Your task to perform on an android device: set default search engine in the chrome app Image 0: 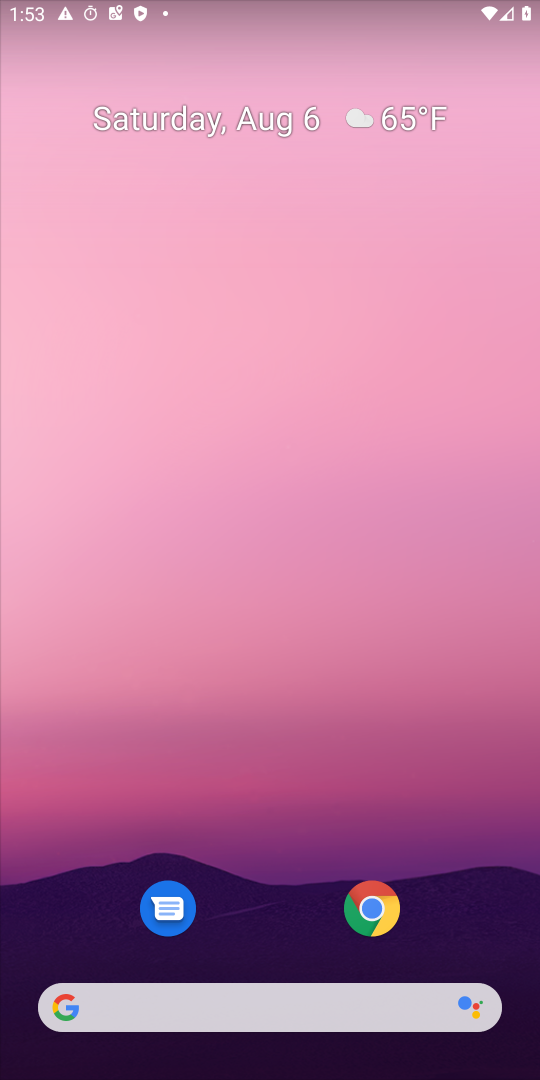
Step 0: click (362, 916)
Your task to perform on an android device: set default search engine in the chrome app Image 1: 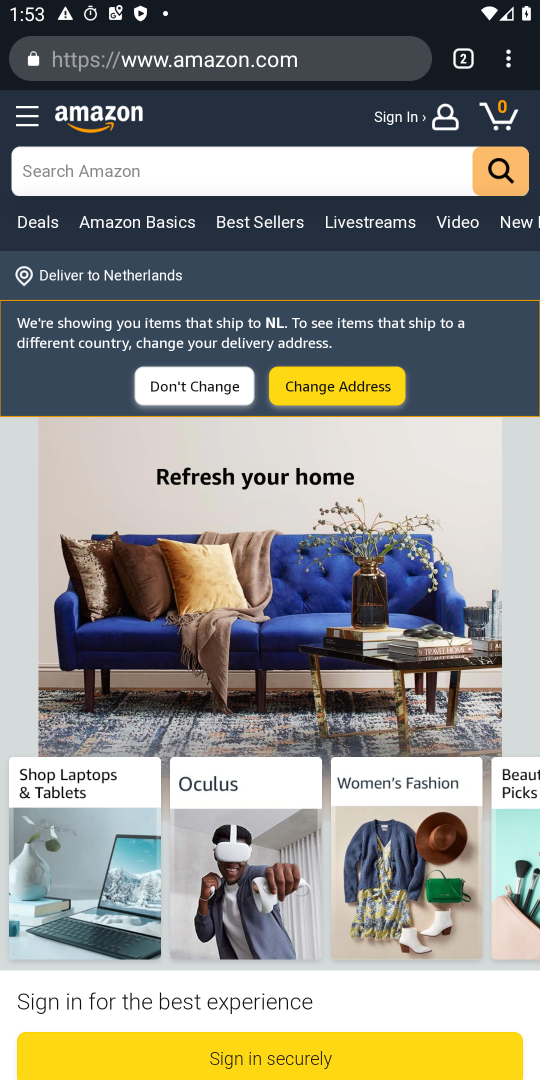
Step 1: click (497, 63)
Your task to perform on an android device: set default search engine in the chrome app Image 2: 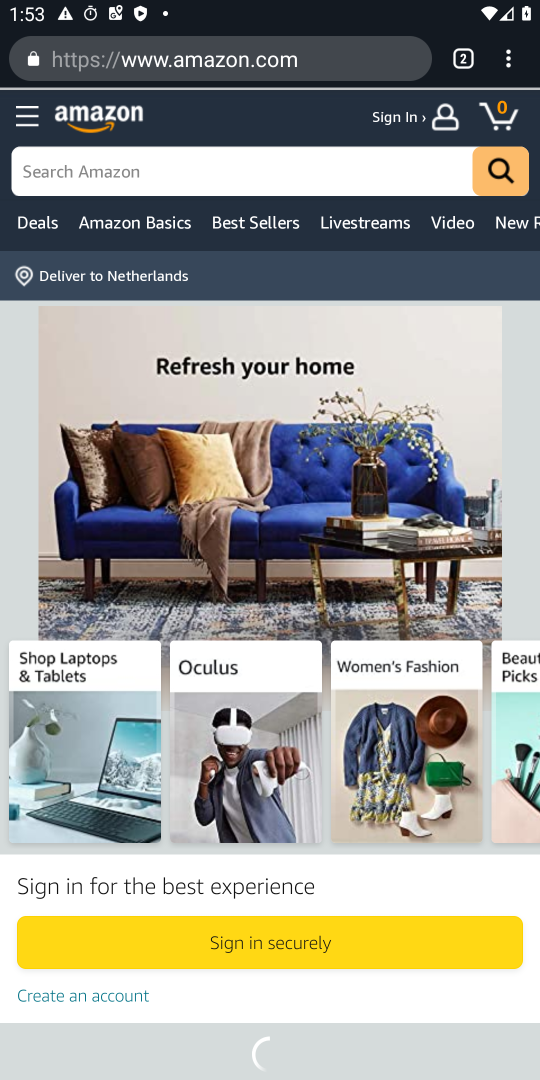
Step 2: click (516, 60)
Your task to perform on an android device: set default search engine in the chrome app Image 3: 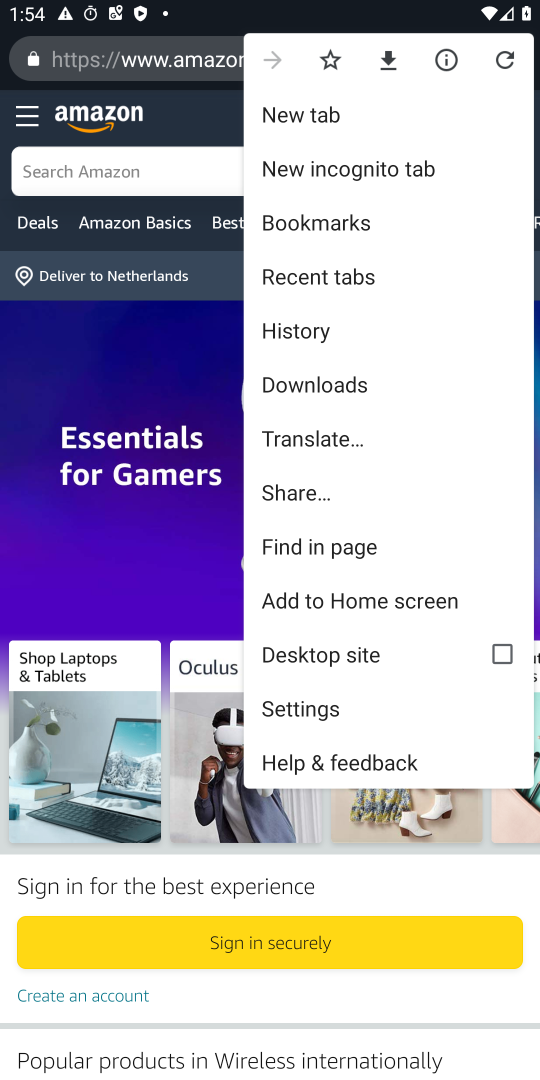
Step 3: click (332, 709)
Your task to perform on an android device: set default search engine in the chrome app Image 4: 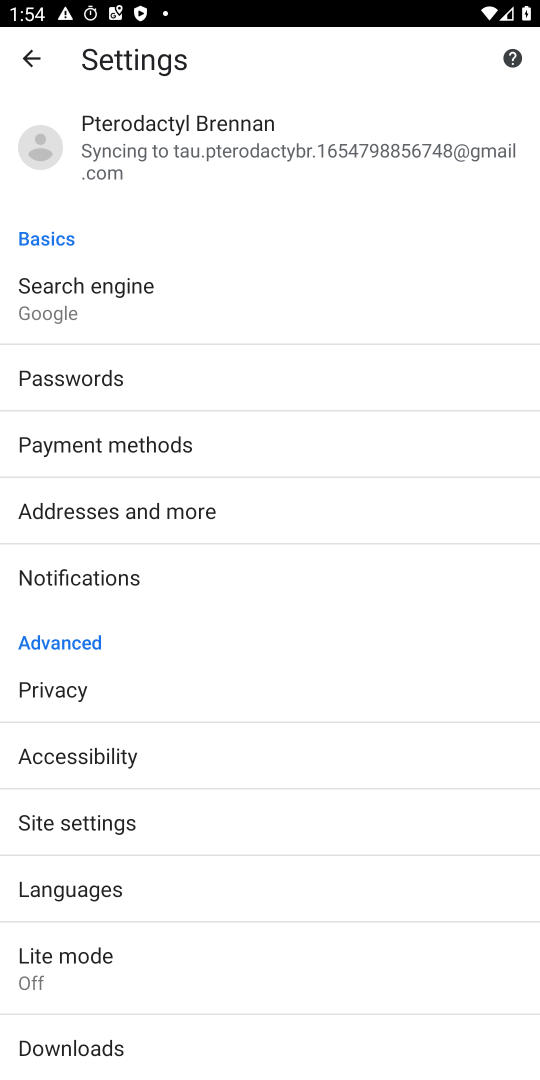
Step 4: click (139, 279)
Your task to perform on an android device: set default search engine in the chrome app Image 5: 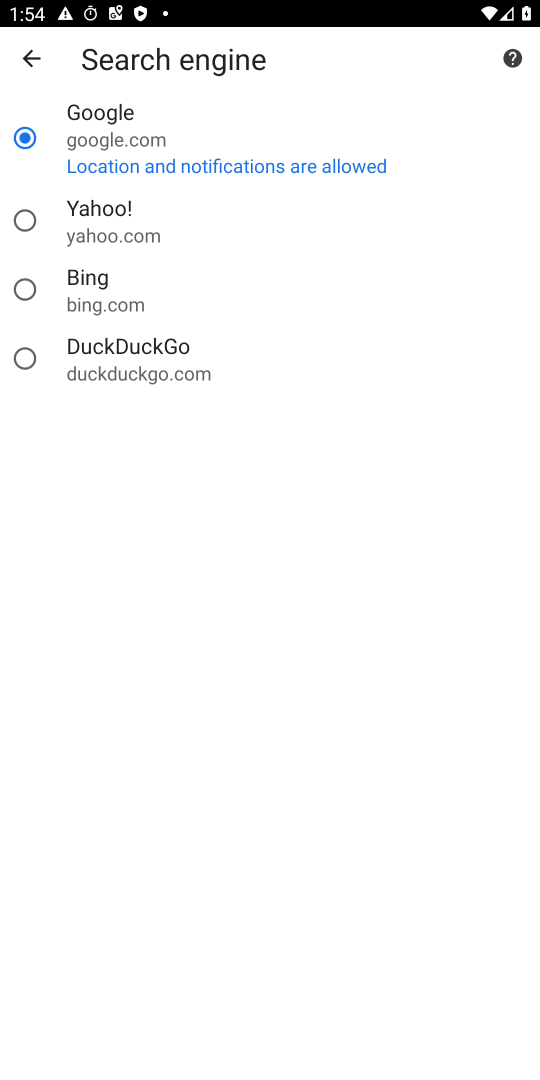
Step 5: click (121, 207)
Your task to perform on an android device: set default search engine in the chrome app Image 6: 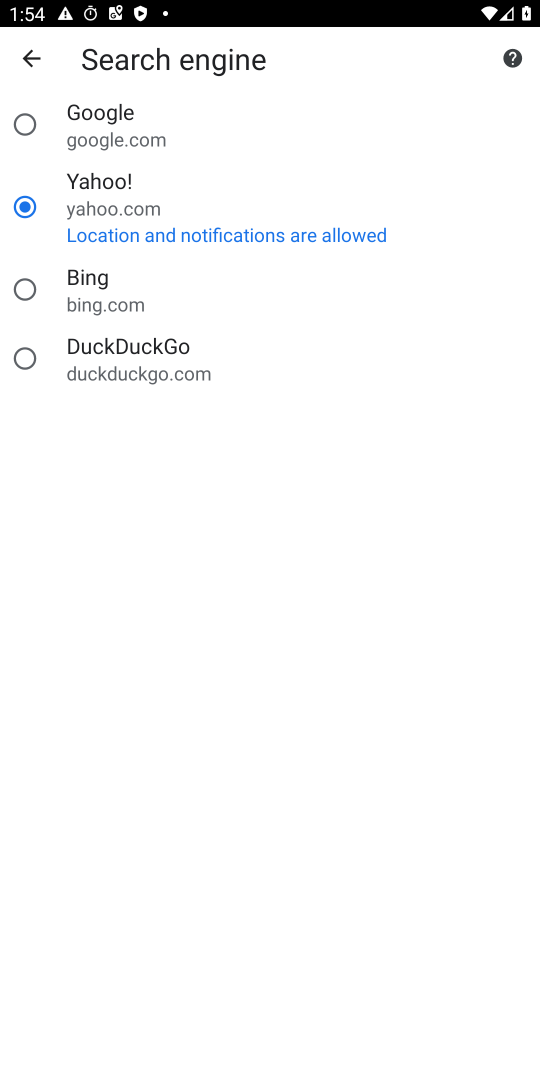
Step 6: task complete